Your task to perform on an android device: turn on translation in the chrome app Image 0: 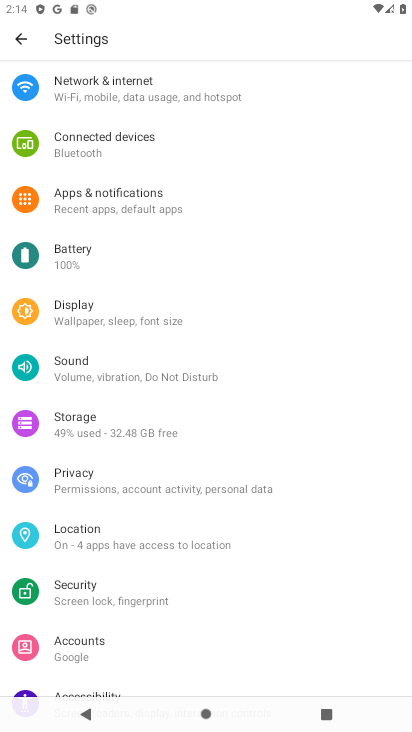
Step 0: press home button
Your task to perform on an android device: turn on translation in the chrome app Image 1: 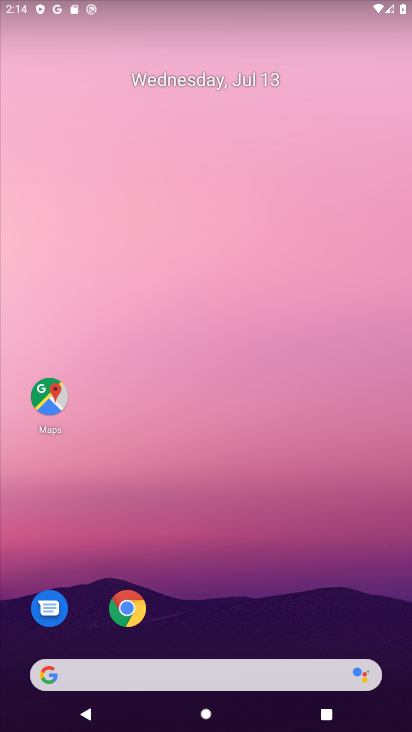
Step 1: click (133, 608)
Your task to perform on an android device: turn on translation in the chrome app Image 2: 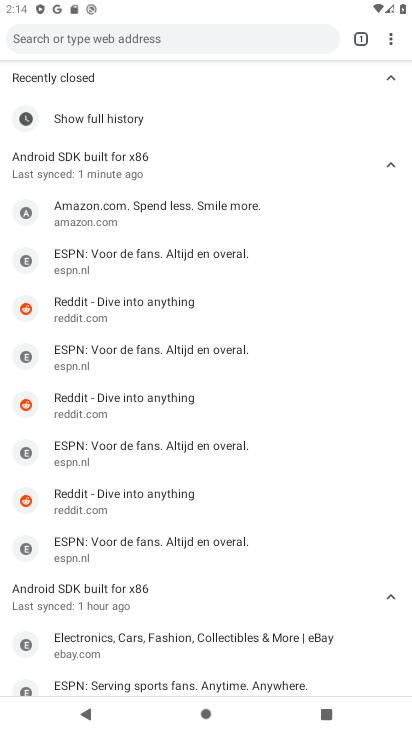
Step 2: click (397, 43)
Your task to perform on an android device: turn on translation in the chrome app Image 3: 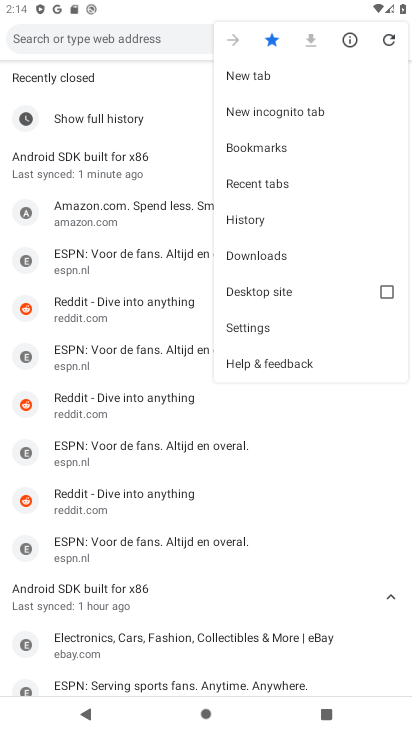
Step 3: click (247, 337)
Your task to perform on an android device: turn on translation in the chrome app Image 4: 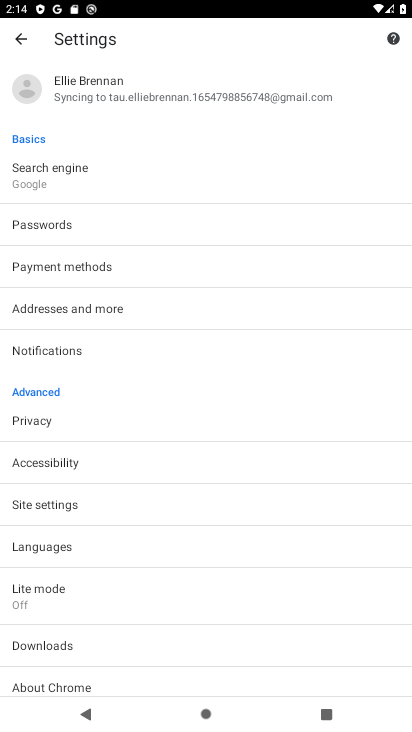
Step 4: click (61, 553)
Your task to perform on an android device: turn on translation in the chrome app Image 5: 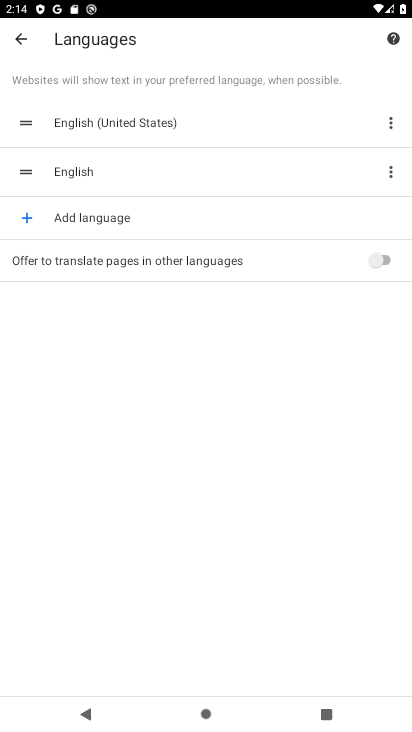
Step 5: click (379, 260)
Your task to perform on an android device: turn on translation in the chrome app Image 6: 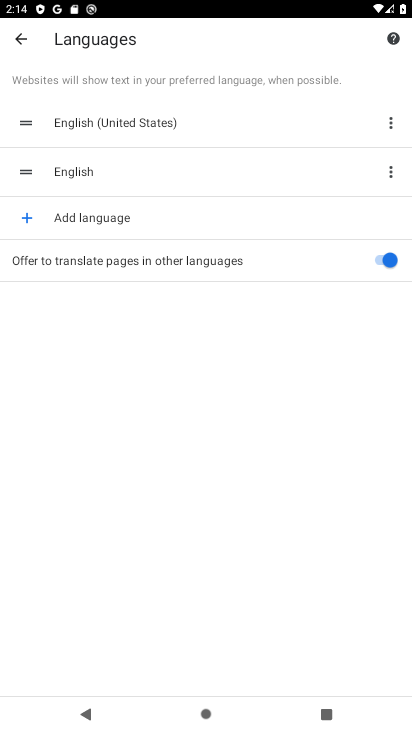
Step 6: task complete